Your task to perform on an android device: Open internet settings Image 0: 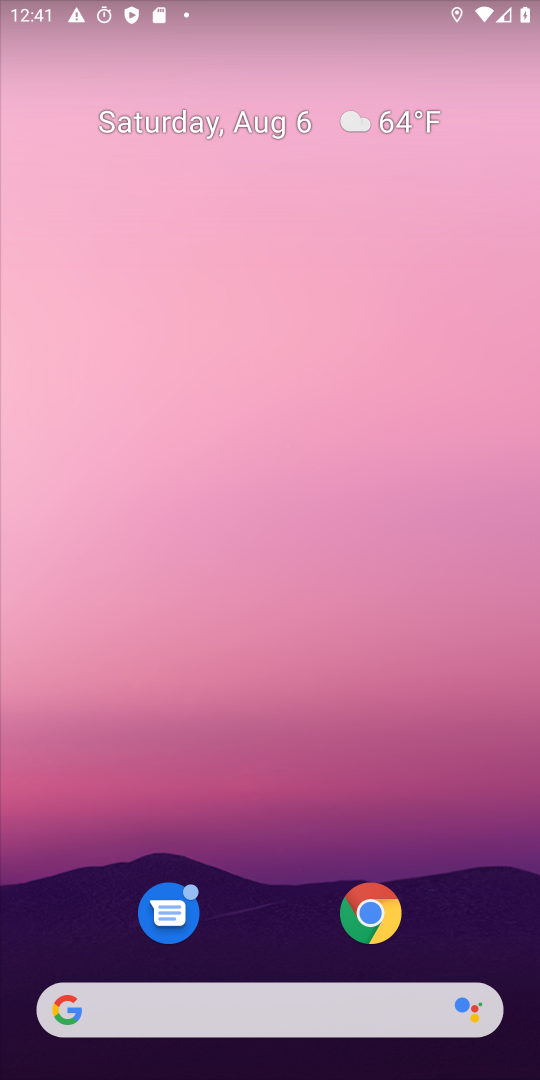
Step 0: drag from (469, 886) to (447, 229)
Your task to perform on an android device: Open internet settings Image 1: 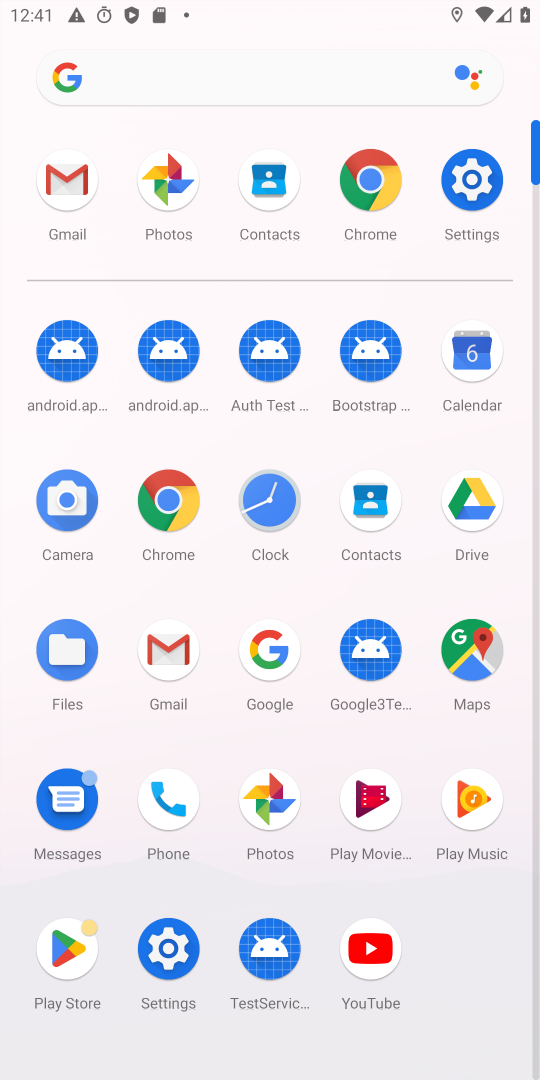
Step 1: click (473, 178)
Your task to perform on an android device: Open internet settings Image 2: 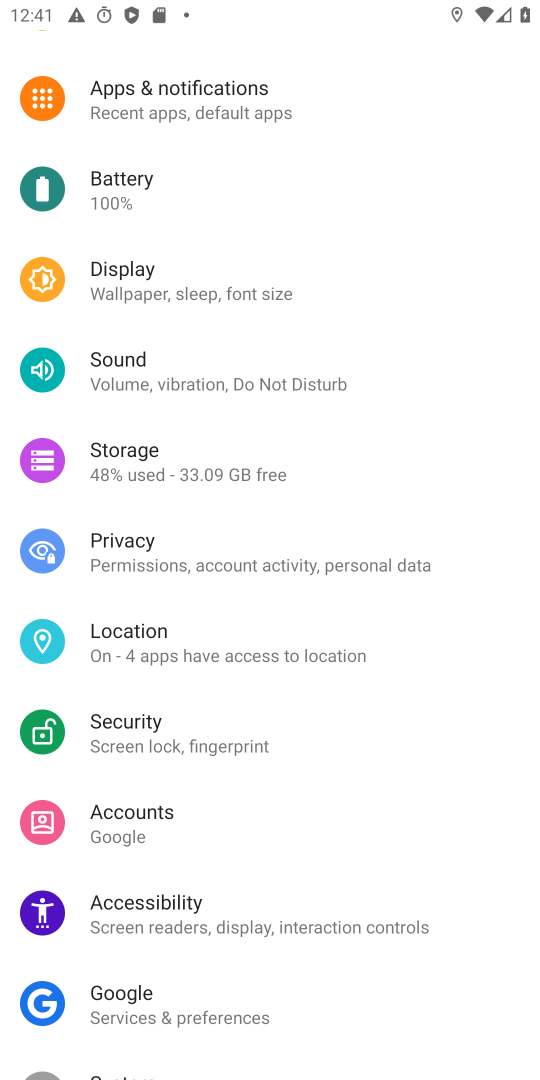
Step 2: drag from (447, 275) to (466, 477)
Your task to perform on an android device: Open internet settings Image 3: 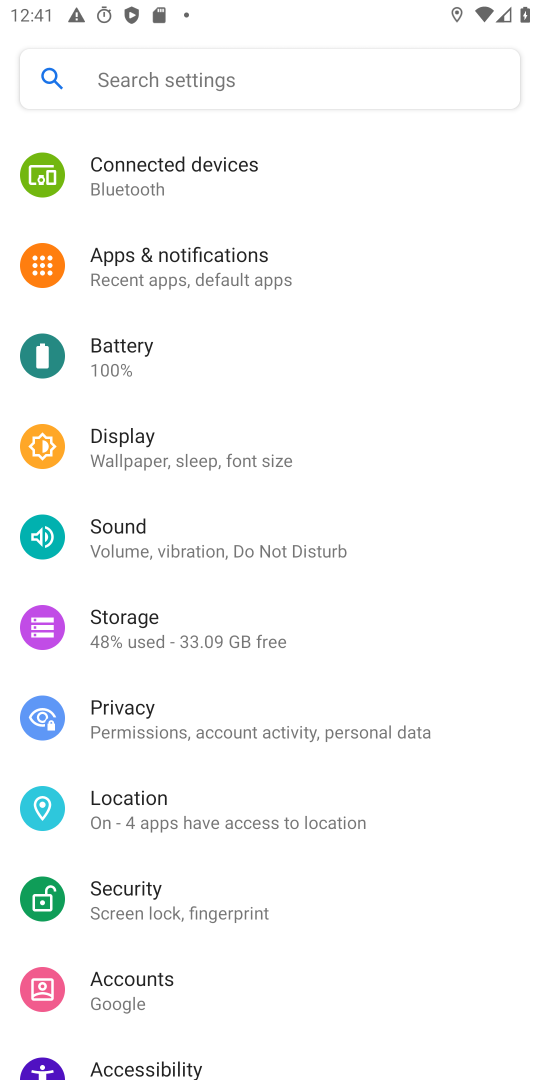
Step 3: drag from (446, 225) to (442, 387)
Your task to perform on an android device: Open internet settings Image 4: 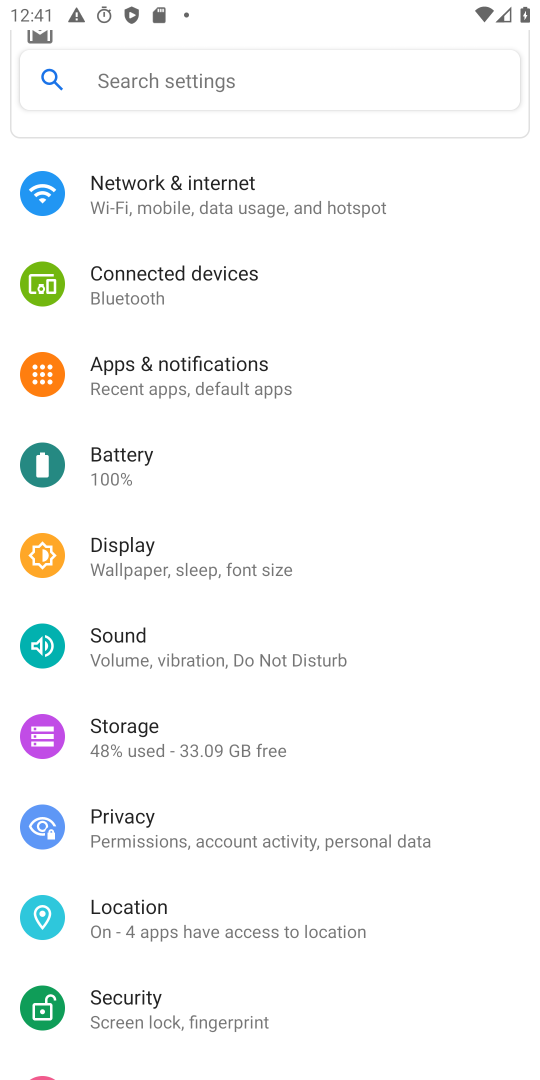
Step 4: drag from (441, 210) to (445, 509)
Your task to perform on an android device: Open internet settings Image 5: 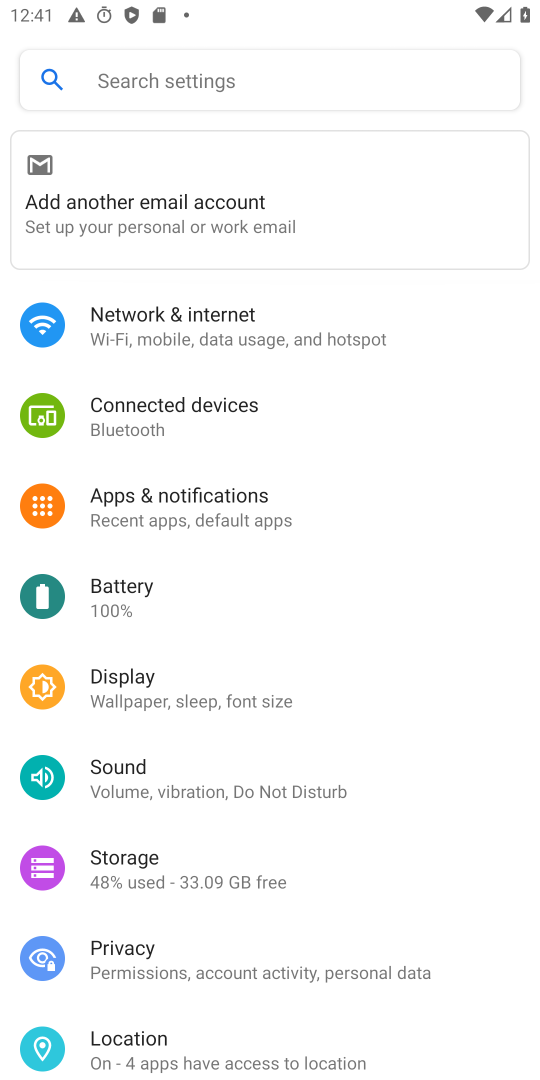
Step 5: click (360, 320)
Your task to perform on an android device: Open internet settings Image 6: 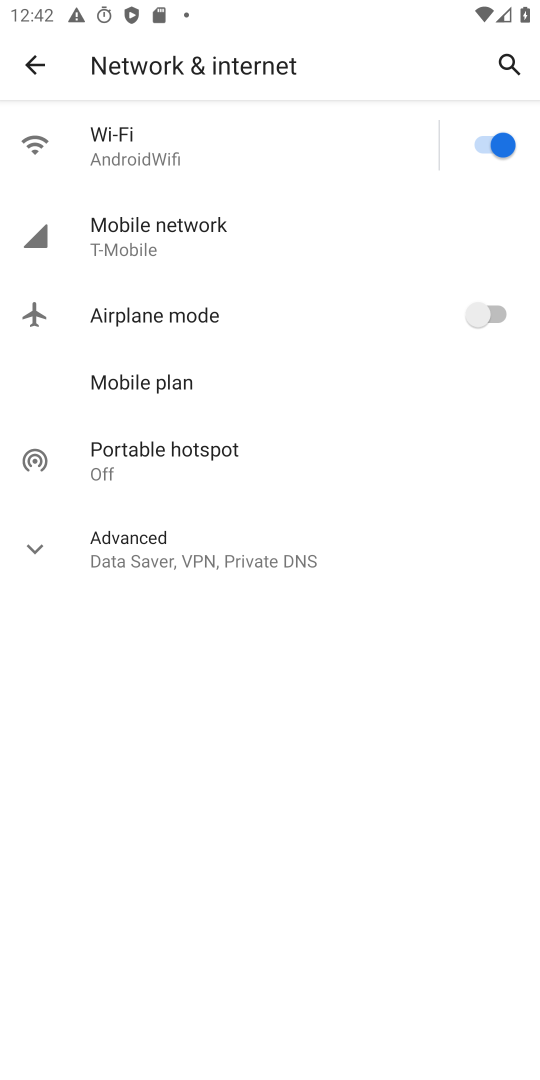
Step 6: task complete